Your task to perform on an android device: Open calendar and show me the first week of next month Image 0: 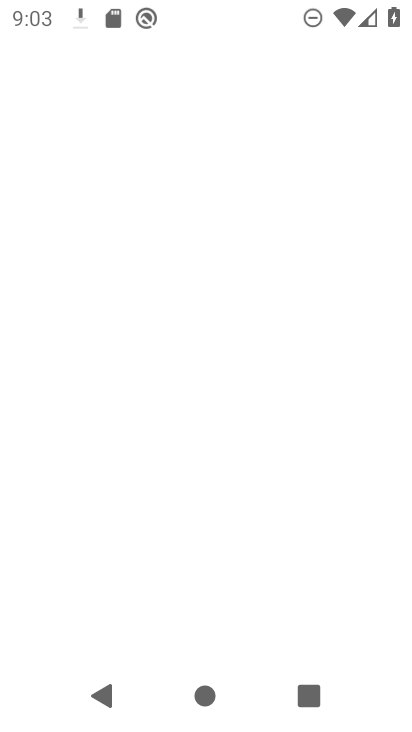
Step 0: press home button
Your task to perform on an android device: Open calendar and show me the first week of next month Image 1: 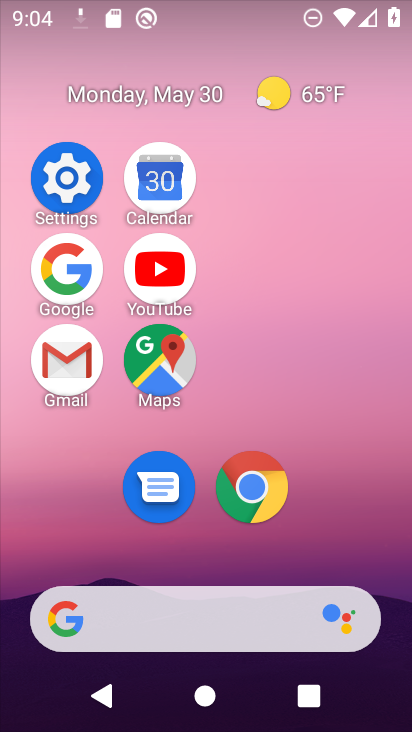
Step 1: click (165, 185)
Your task to perform on an android device: Open calendar and show me the first week of next month Image 2: 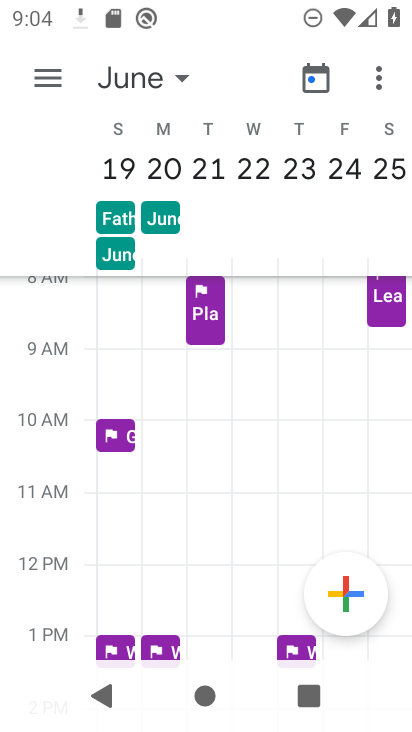
Step 2: task complete